Your task to perform on an android device: open app "Google Drive" (install if not already installed) Image 0: 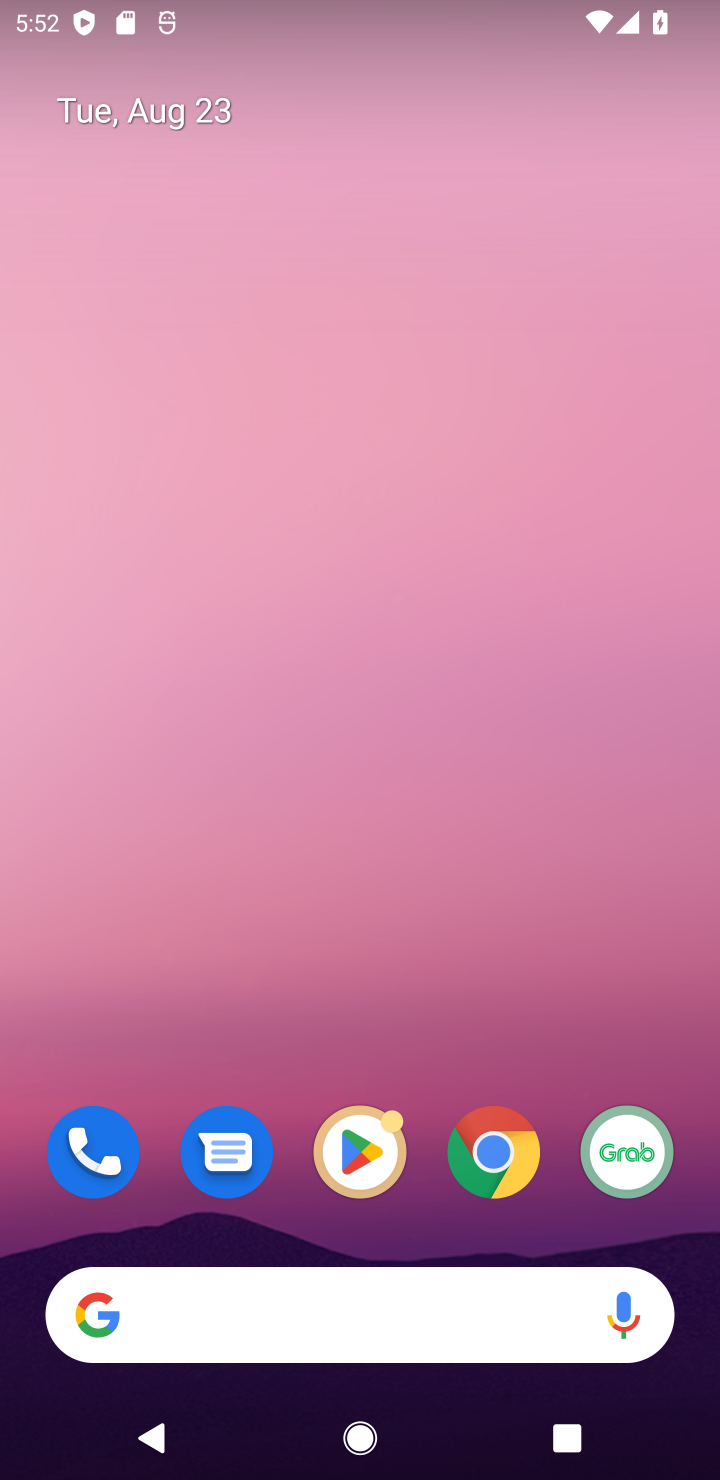
Step 0: click (356, 1164)
Your task to perform on an android device: open app "Google Drive" (install if not already installed) Image 1: 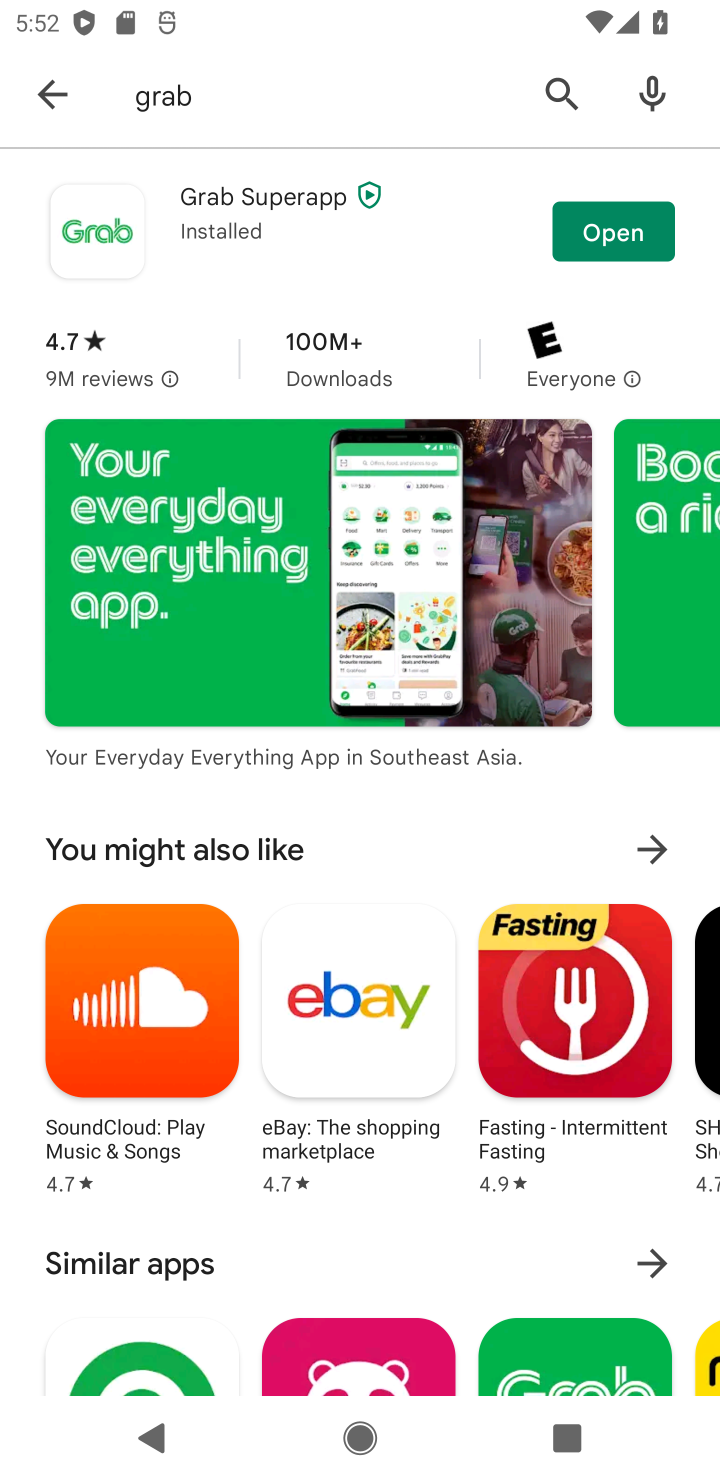
Step 1: click (556, 108)
Your task to perform on an android device: open app "Google Drive" (install if not already installed) Image 2: 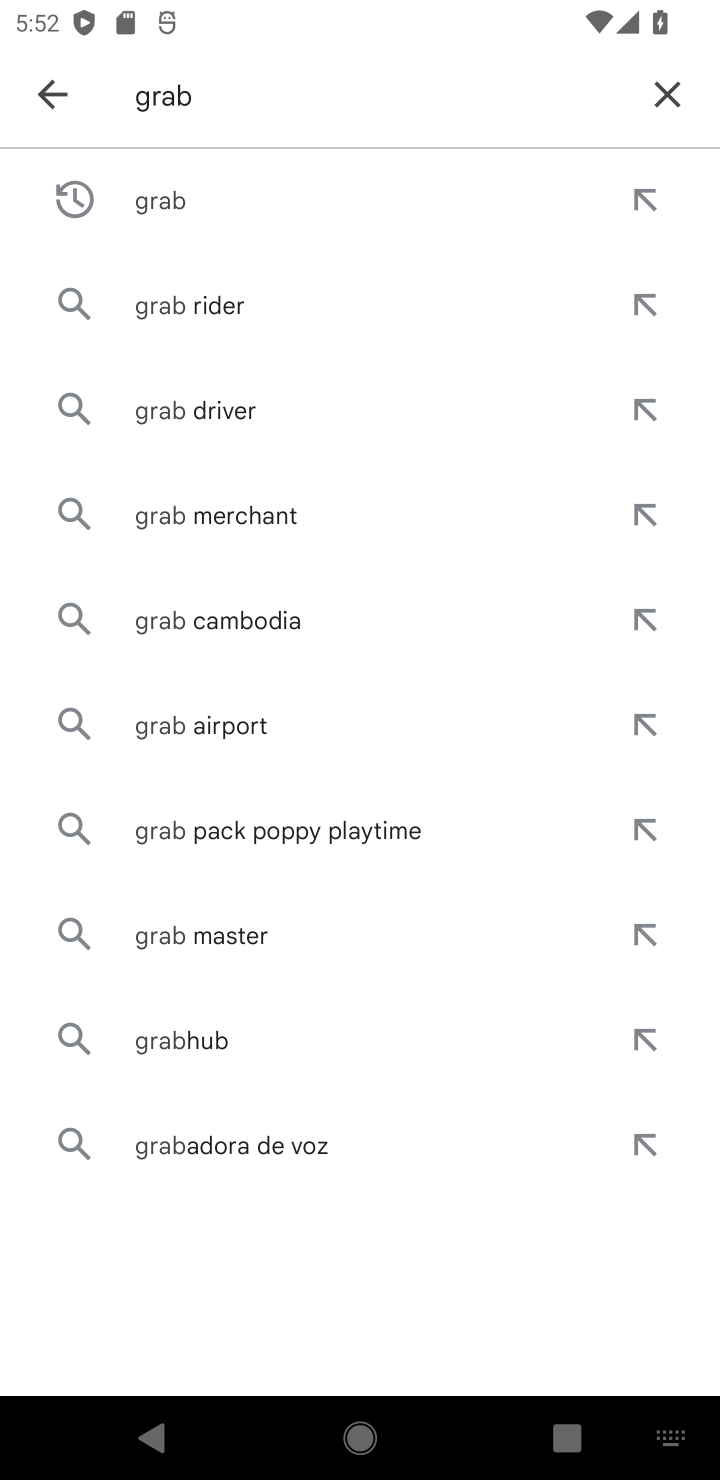
Step 2: click (659, 97)
Your task to perform on an android device: open app "Google Drive" (install if not already installed) Image 3: 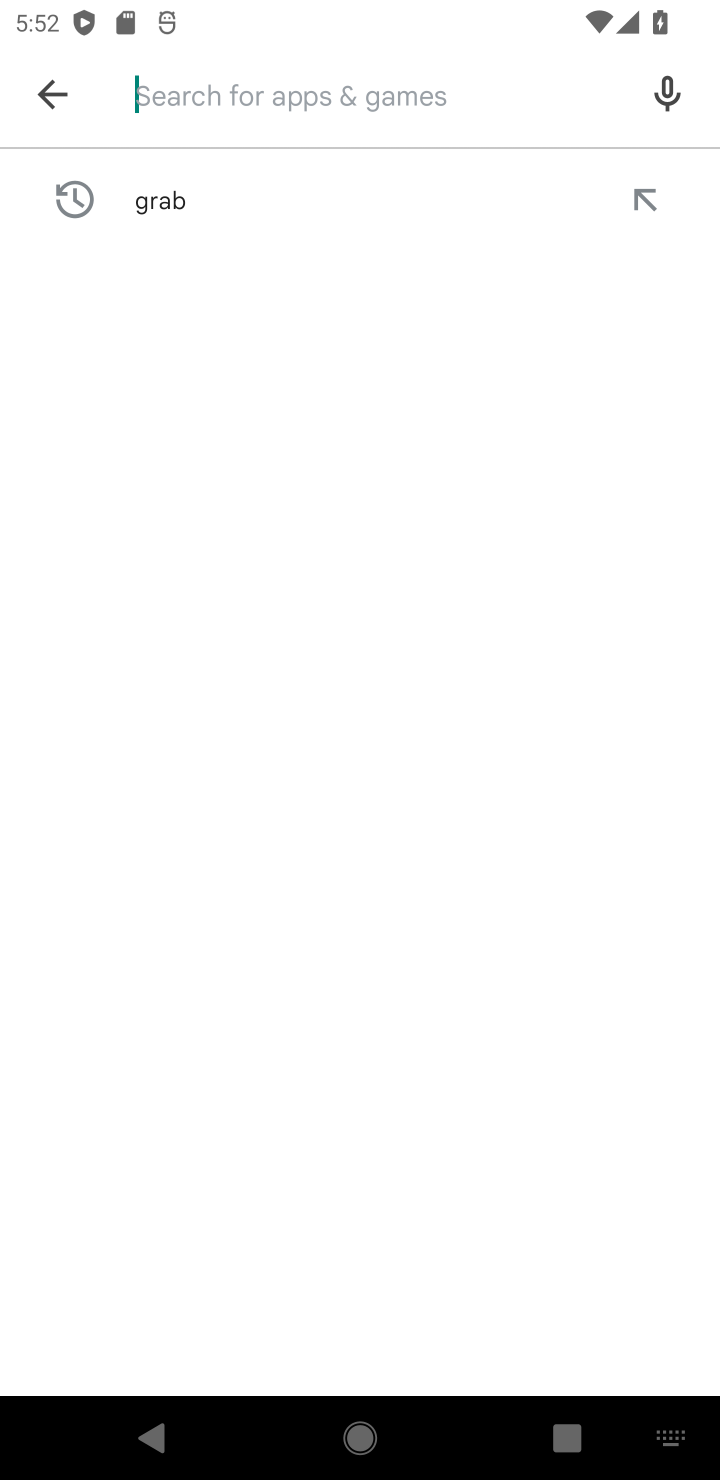
Step 3: click (158, 92)
Your task to perform on an android device: open app "Google Drive" (install if not already installed) Image 4: 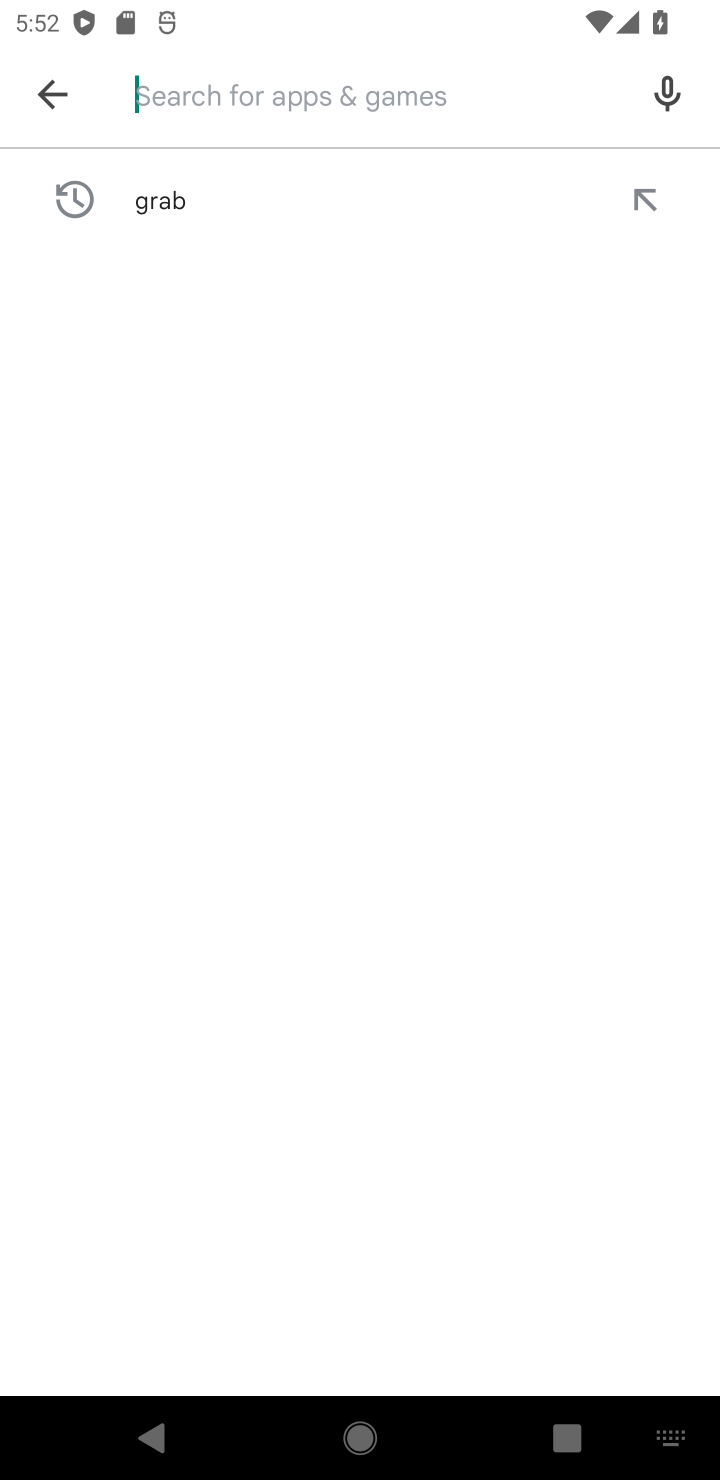
Step 4: type "Google Drive"
Your task to perform on an android device: open app "Google Drive" (install if not already installed) Image 5: 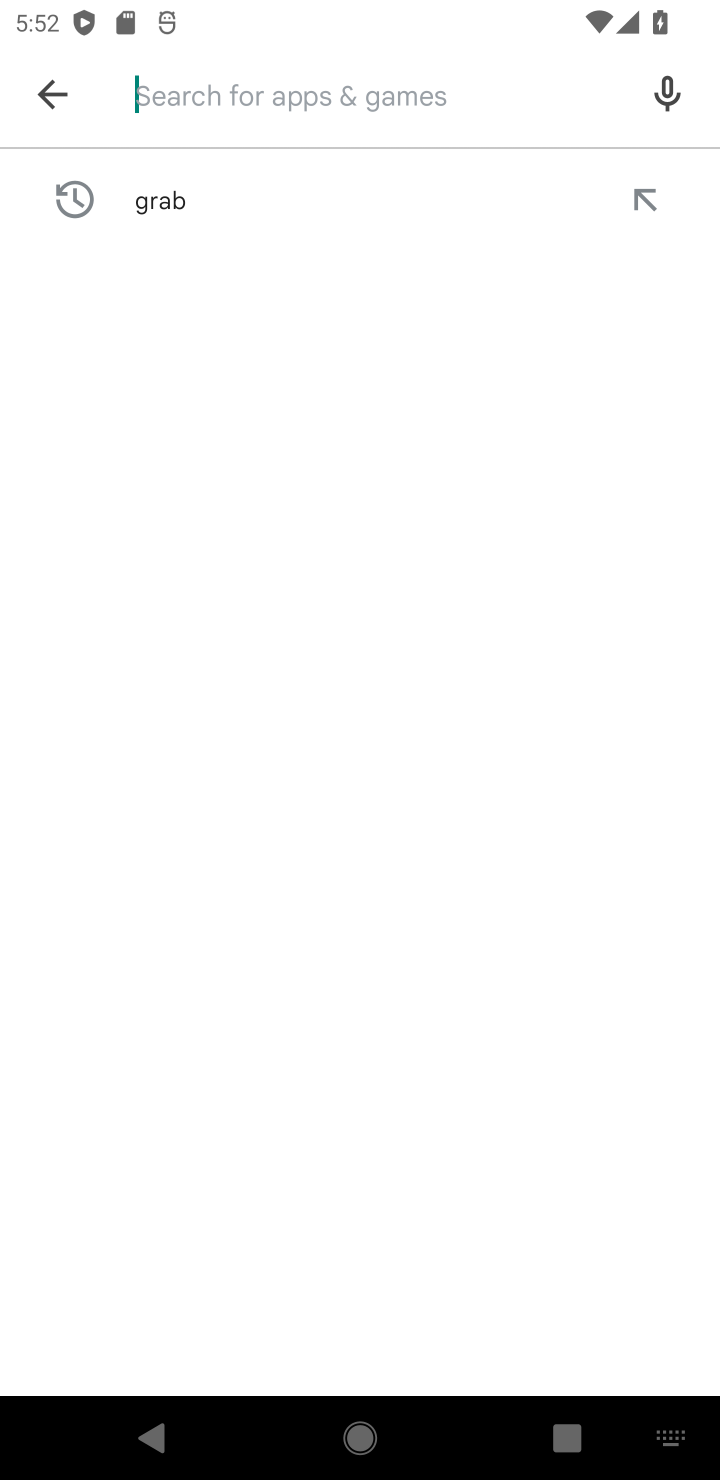
Step 5: click (290, 902)
Your task to perform on an android device: open app "Google Drive" (install if not already installed) Image 6: 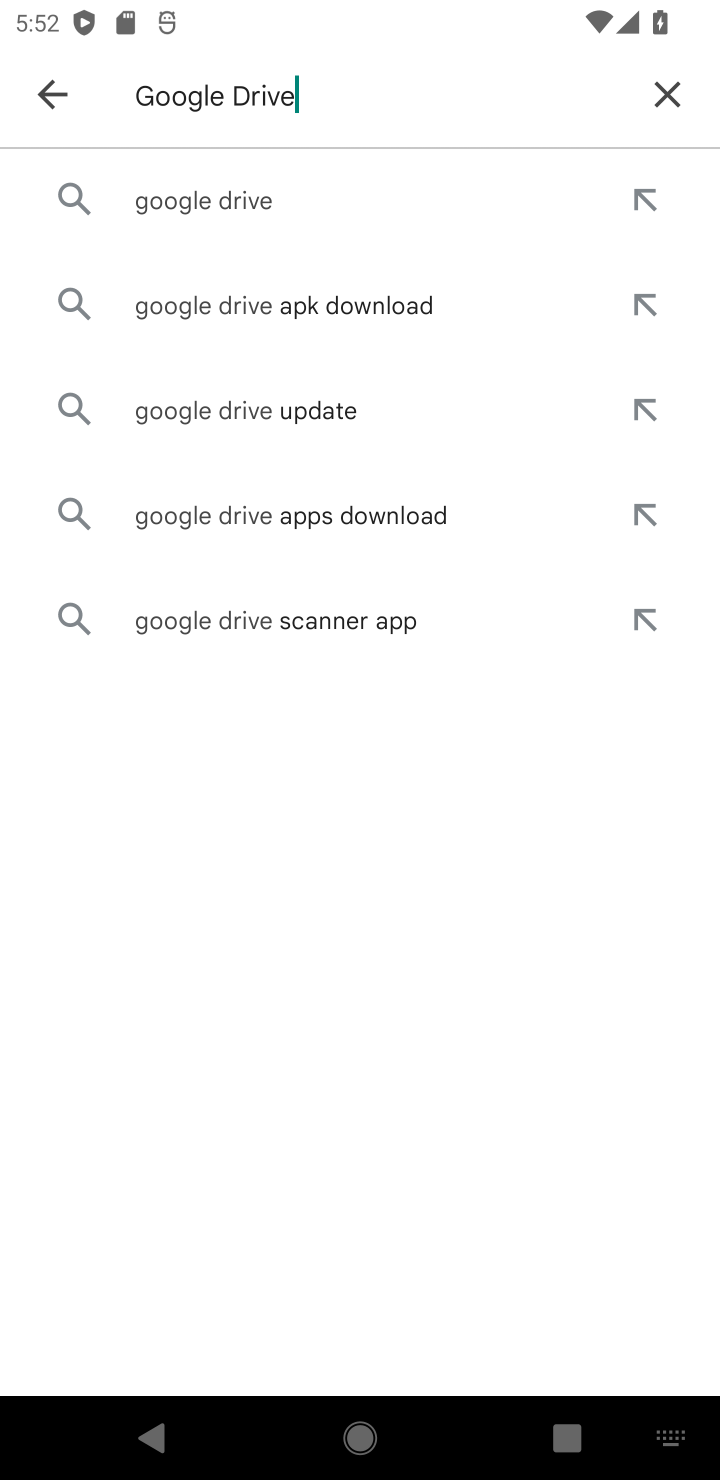
Step 6: click (240, 187)
Your task to perform on an android device: open app "Google Drive" (install if not already installed) Image 7: 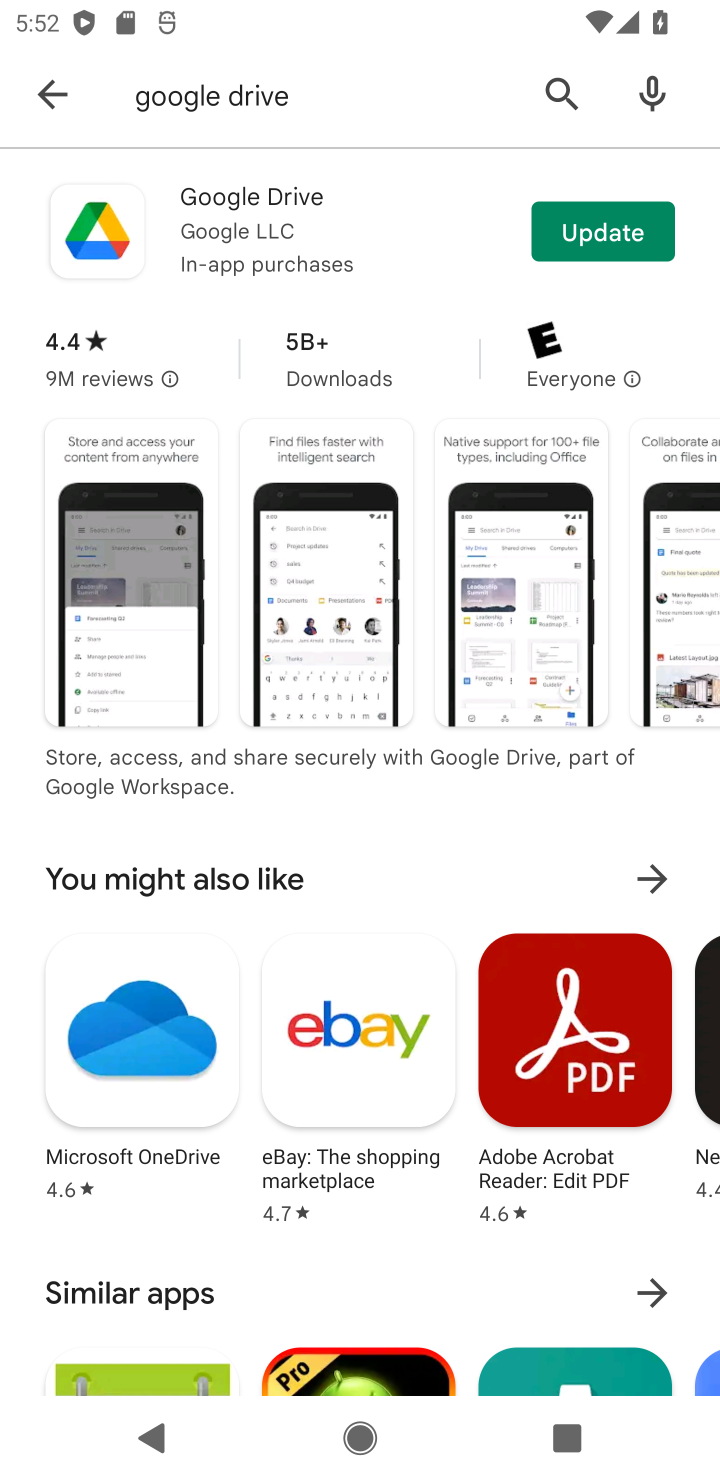
Step 7: click (260, 213)
Your task to perform on an android device: open app "Google Drive" (install if not already installed) Image 8: 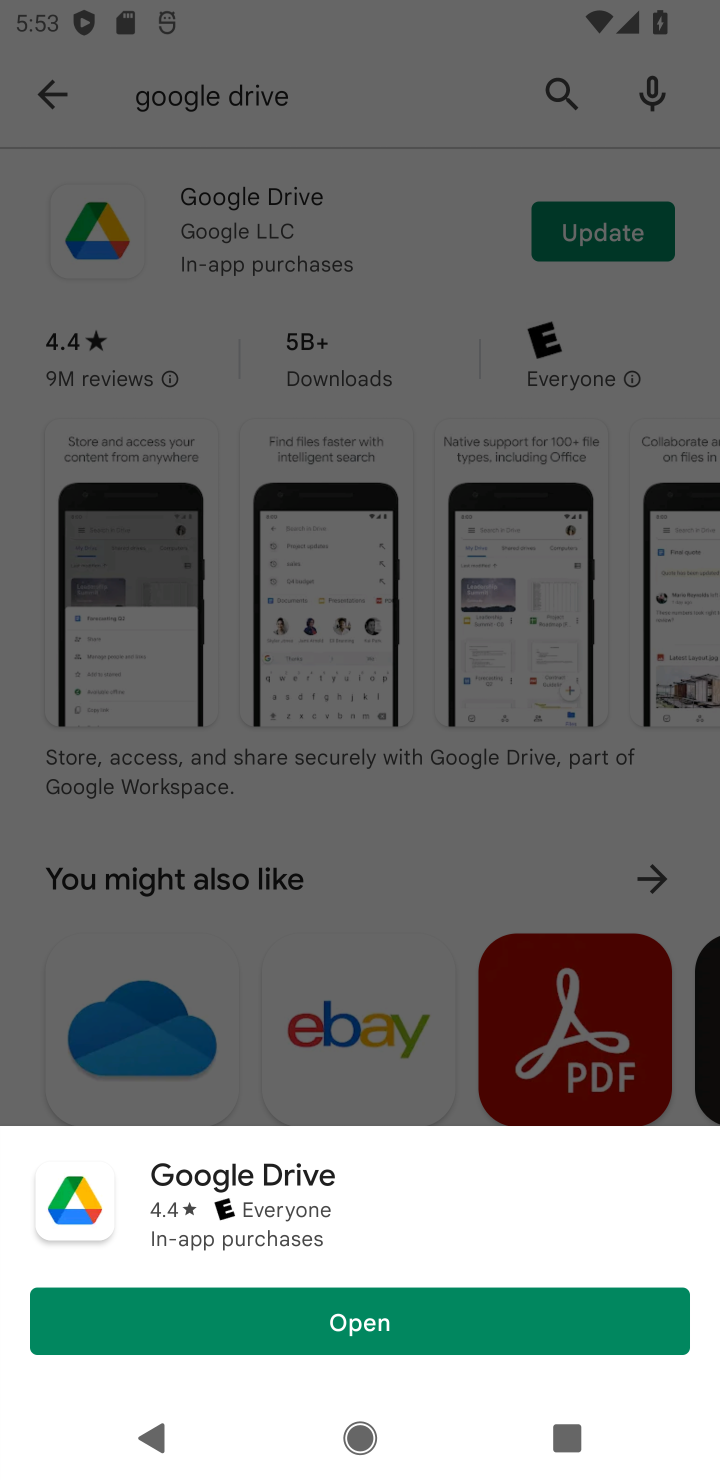
Step 8: click (302, 1325)
Your task to perform on an android device: open app "Google Drive" (install if not already installed) Image 9: 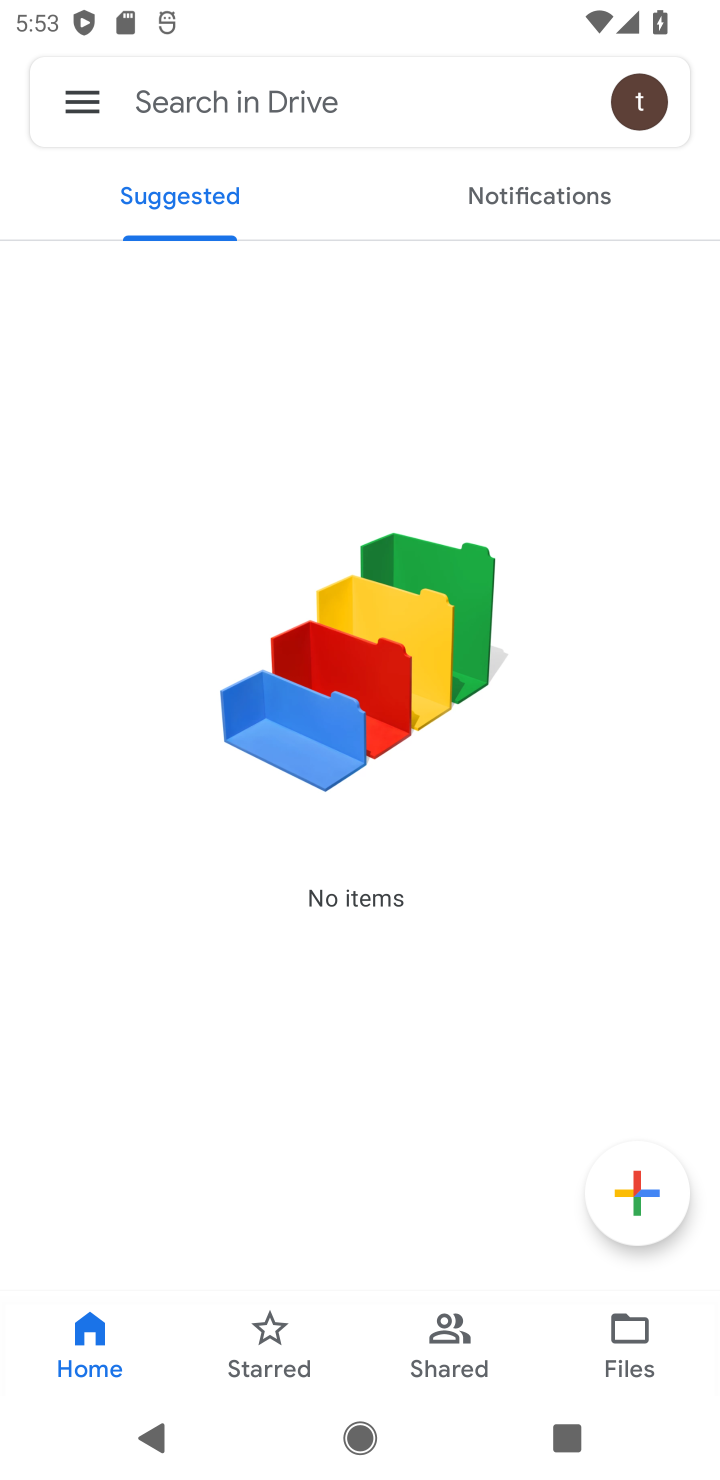
Step 9: task complete